Your task to perform on an android device: What's the weather? Image 0: 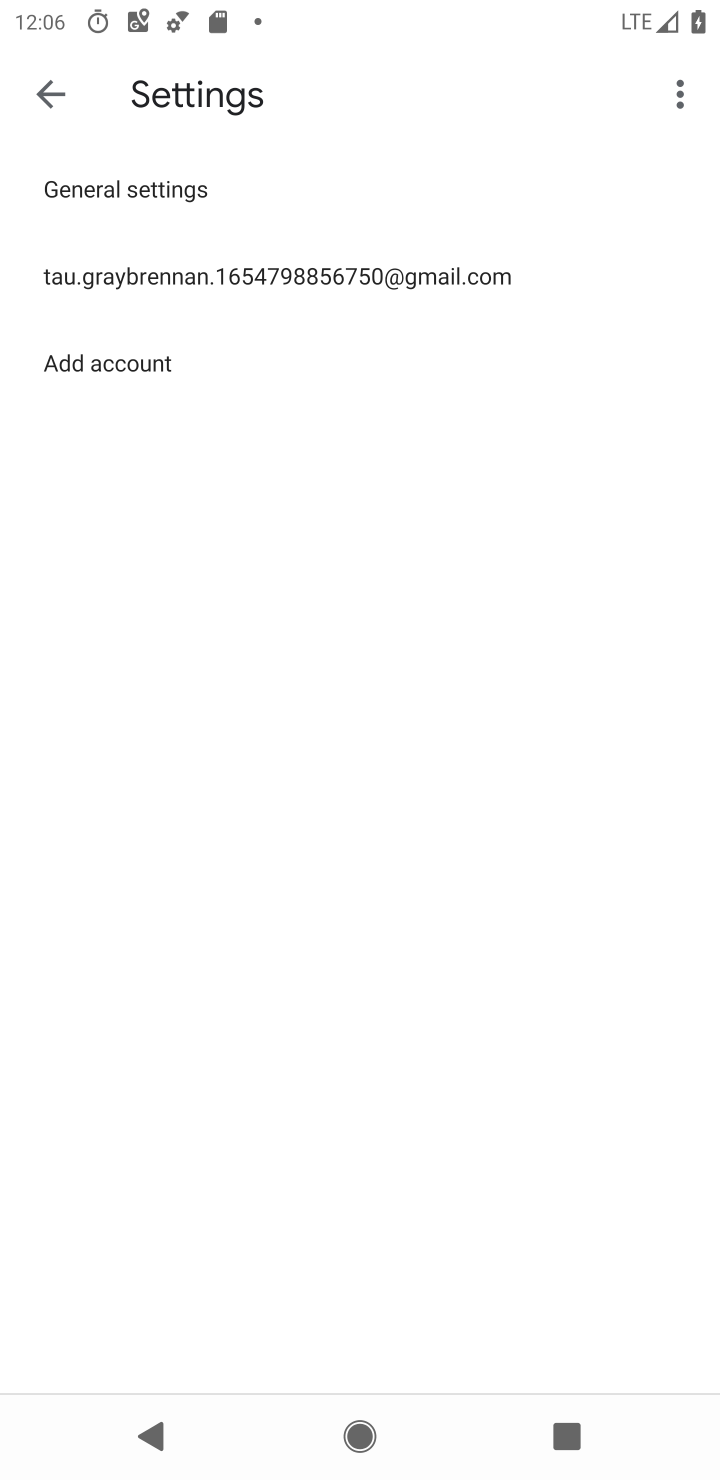
Step 0: press home button
Your task to perform on an android device: What's the weather? Image 1: 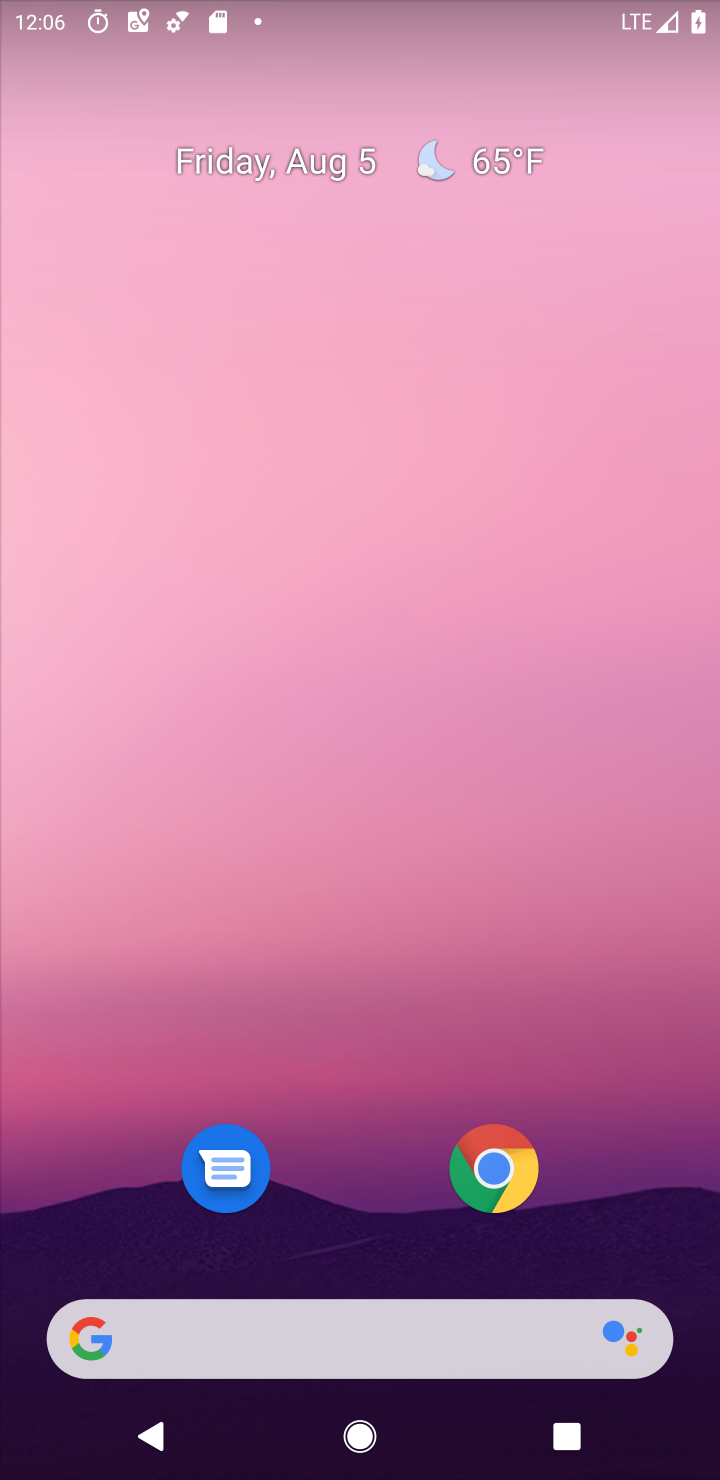
Step 1: click (309, 1342)
Your task to perform on an android device: What's the weather? Image 2: 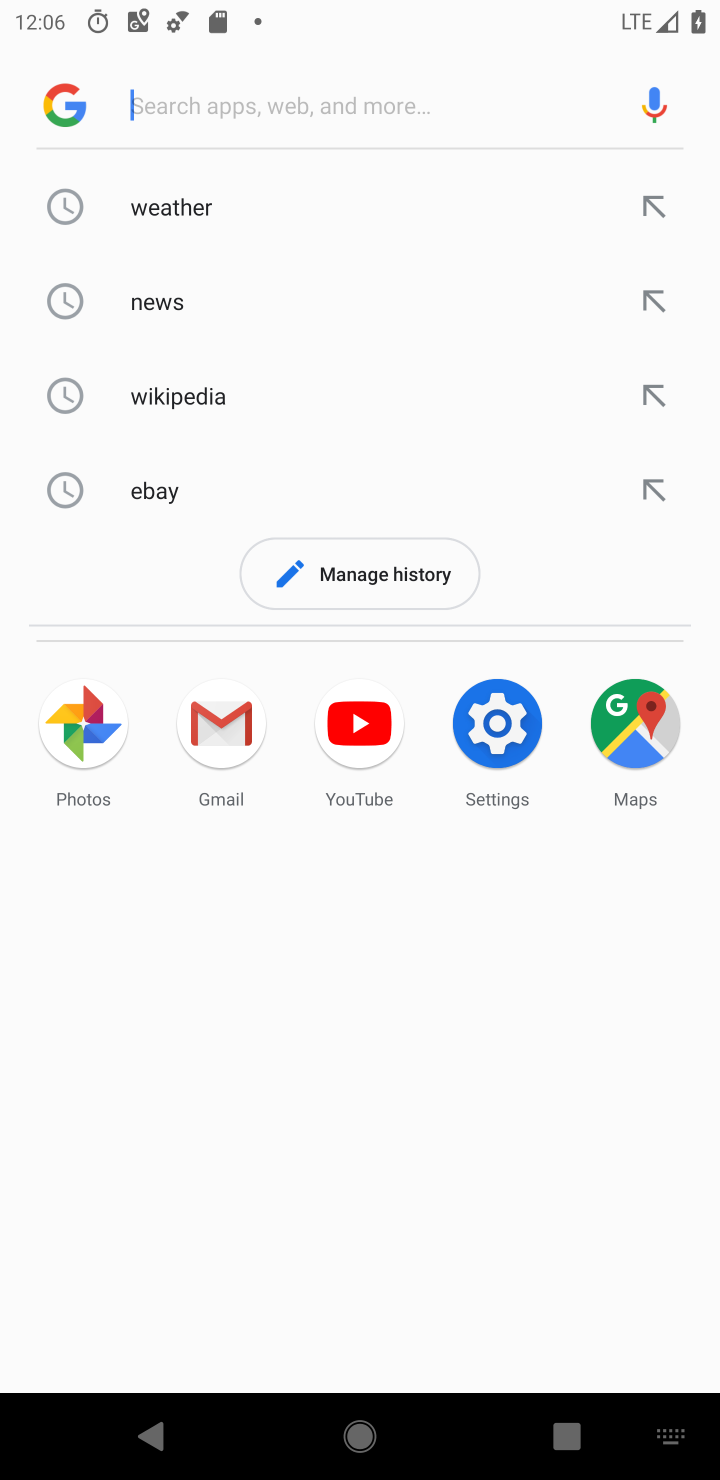
Step 2: click (166, 223)
Your task to perform on an android device: What's the weather? Image 3: 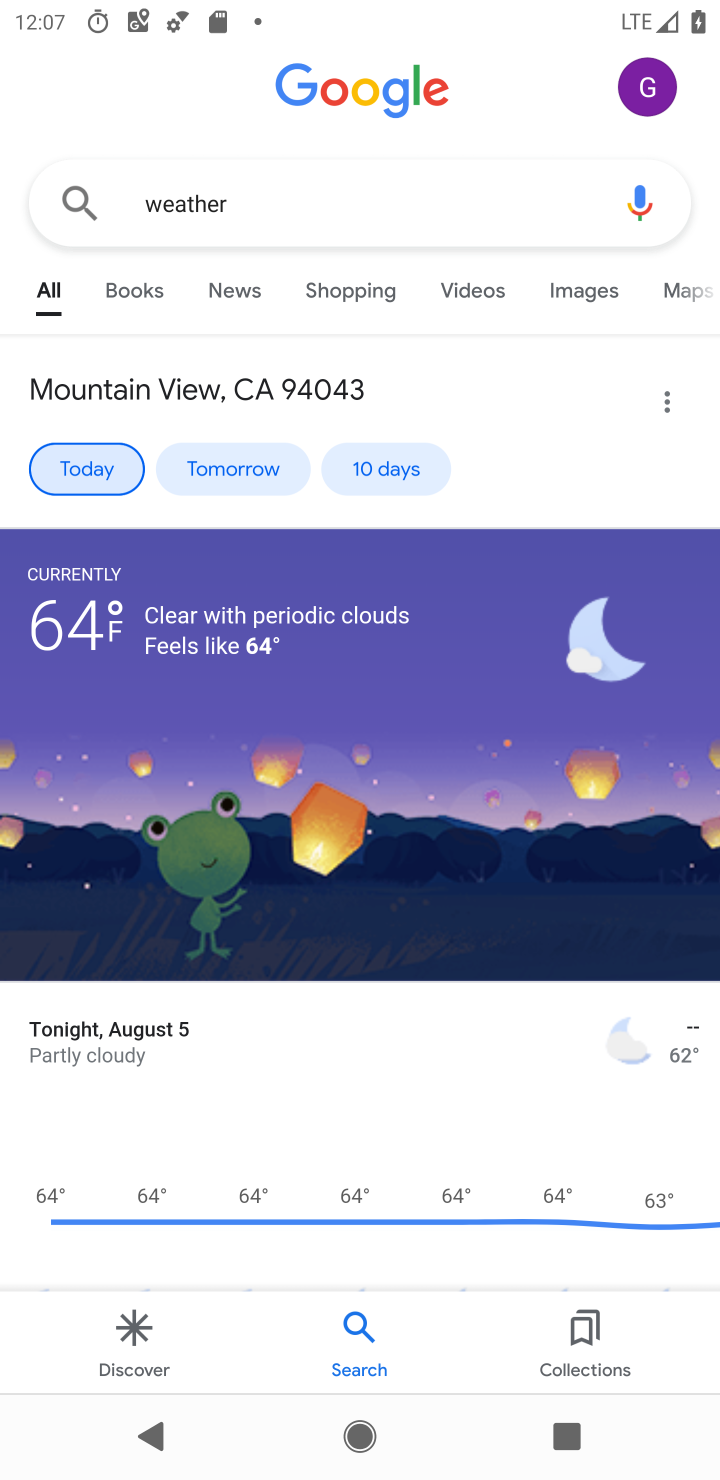
Step 3: task complete